Your task to perform on an android device: Open the calendar app, open the side menu, and click the "Day" option Image 0: 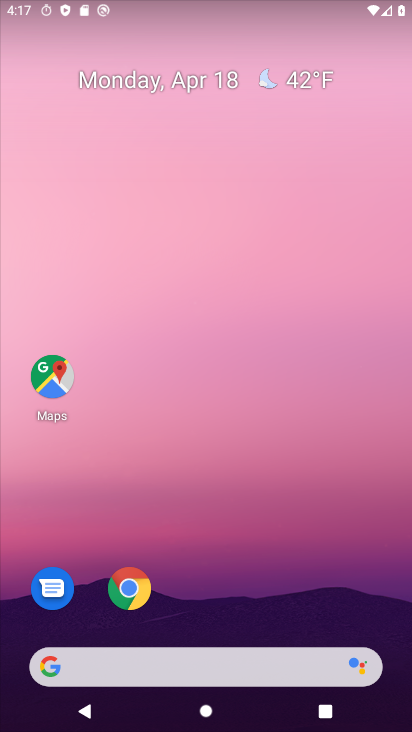
Step 0: drag from (214, 621) to (265, 60)
Your task to perform on an android device: Open the calendar app, open the side menu, and click the "Day" option Image 1: 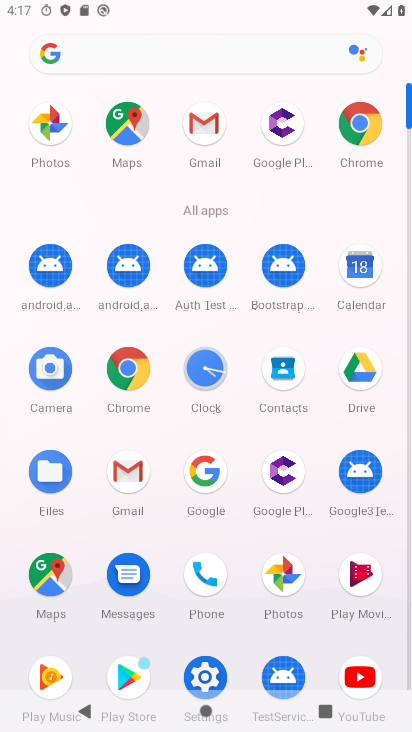
Step 1: click (368, 264)
Your task to perform on an android device: Open the calendar app, open the side menu, and click the "Day" option Image 2: 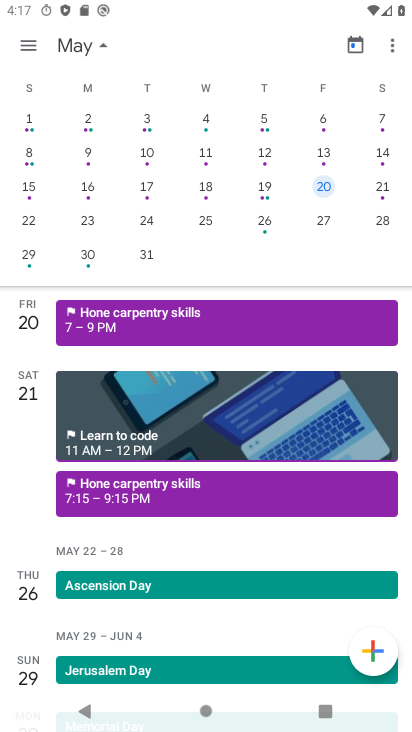
Step 2: click (28, 51)
Your task to perform on an android device: Open the calendar app, open the side menu, and click the "Day" option Image 3: 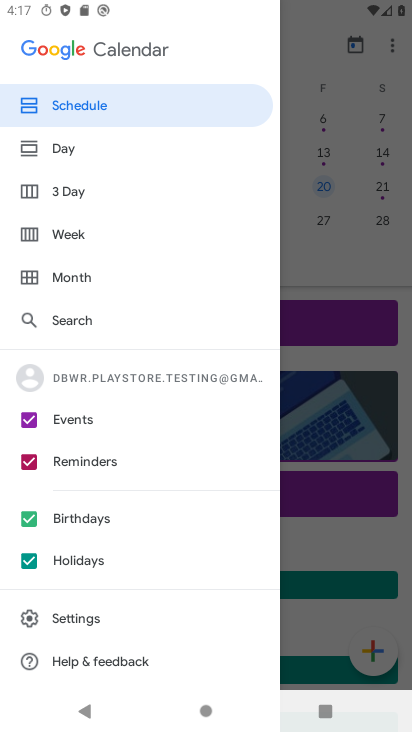
Step 3: click (74, 158)
Your task to perform on an android device: Open the calendar app, open the side menu, and click the "Day" option Image 4: 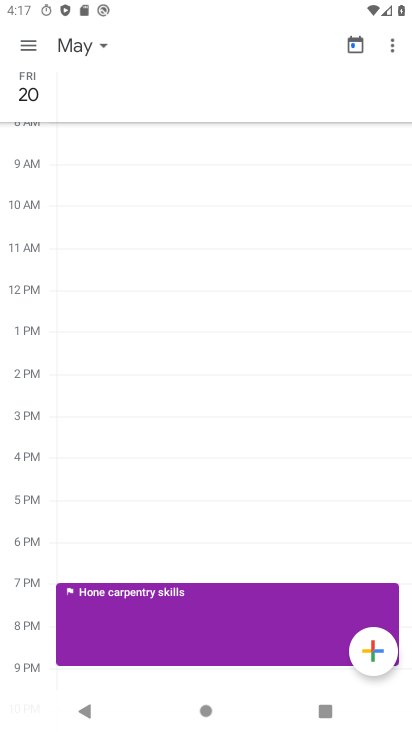
Step 4: task complete